Your task to perform on an android device: turn notification dots on Image 0: 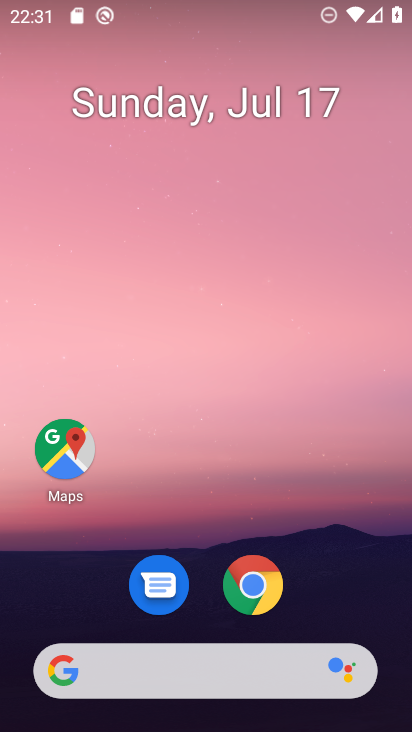
Step 0: drag from (171, 672) to (295, 48)
Your task to perform on an android device: turn notification dots on Image 1: 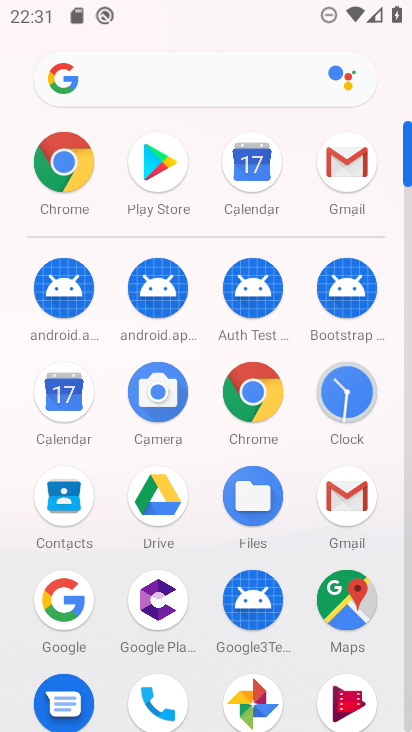
Step 1: drag from (195, 659) to (214, 196)
Your task to perform on an android device: turn notification dots on Image 2: 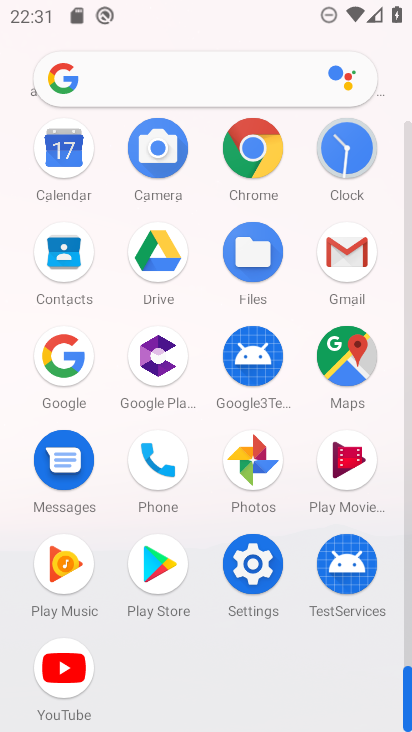
Step 2: click (254, 561)
Your task to perform on an android device: turn notification dots on Image 3: 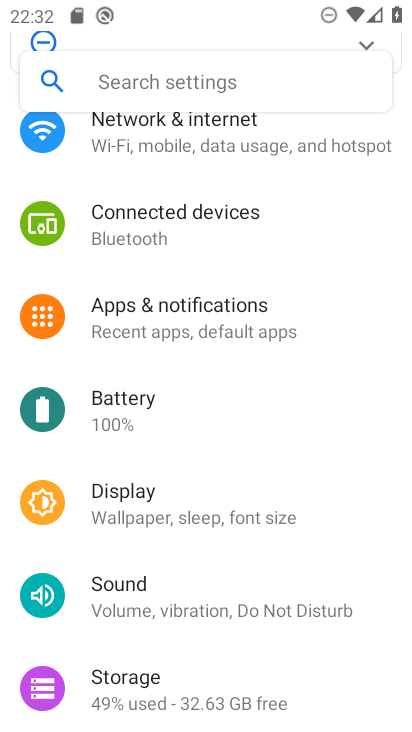
Step 3: click (200, 313)
Your task to perform on an android device: turn notification dots on Image 4: 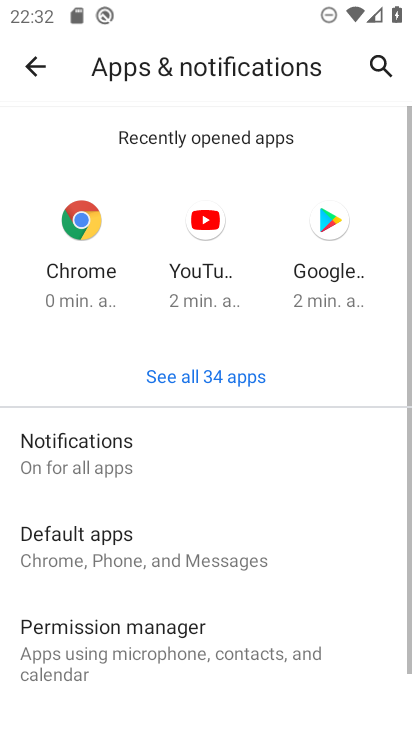
Step 4: click (93, 440)
Your task to perform on an android device: turn notification dots on Image 5: 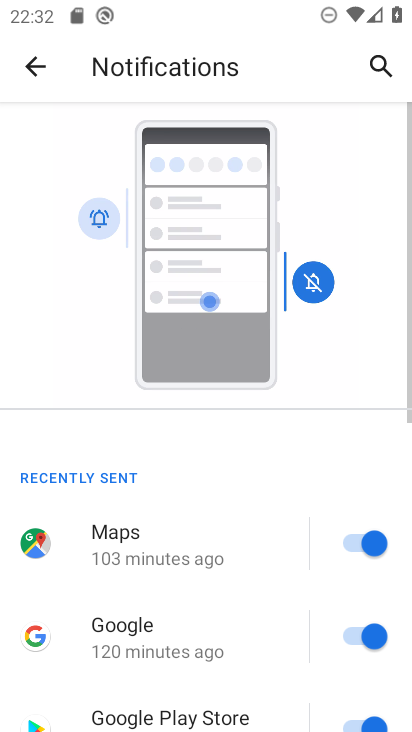
Step 5: drag from (248, 667) to (290, 30)
Your task to perform on an android device: turn notification dots on Image 6: 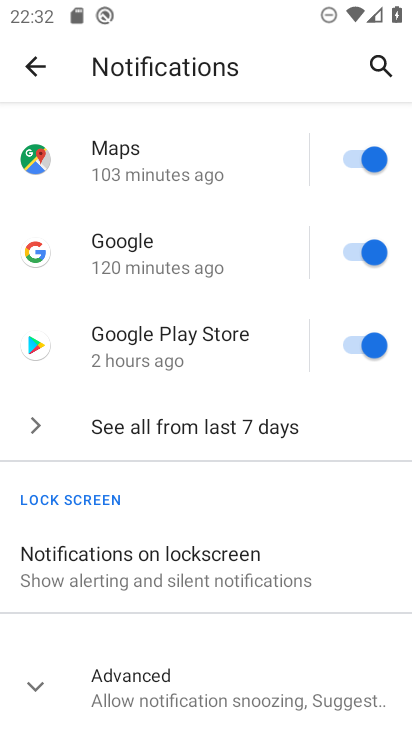
Step 6: click (191, 685)
Your task to perform on an android device: turn notification dots on Image 7: 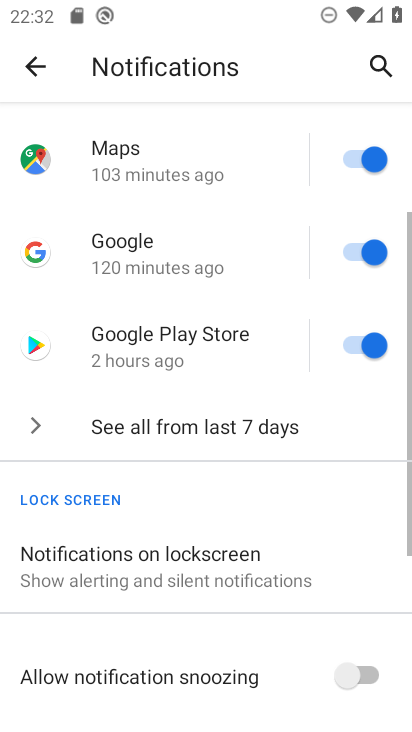
Step 7: drag from (270, 648) to (306, 22)
Your task to perform on an android device: turn notification dots on Image 8: 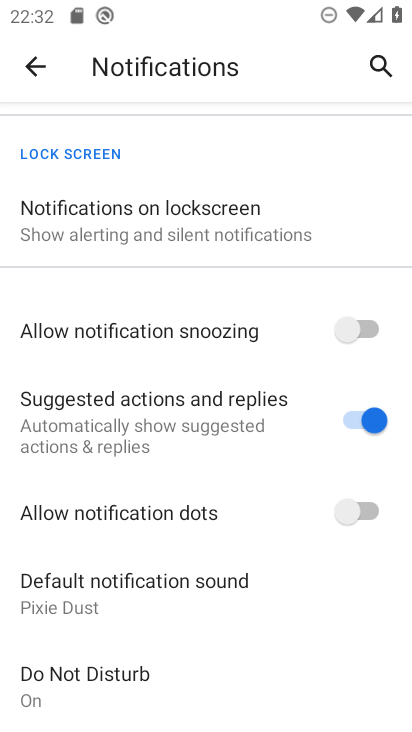
Step 8: drag from (274, 630) to (337, 174)
Your task to perform on an android device: turn notification dots on Image 9: 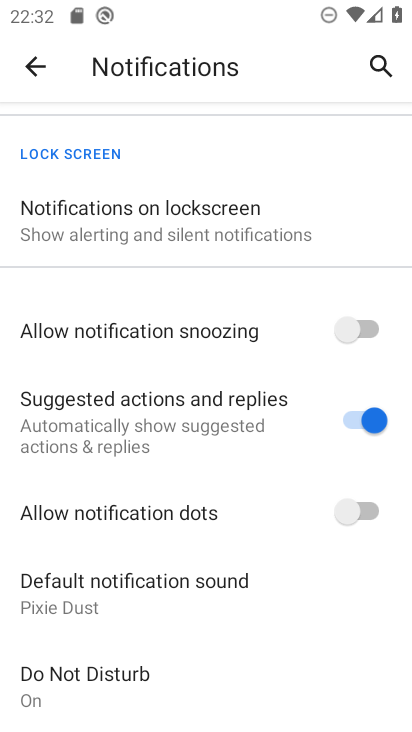
Step 9: click (367, 510)
Your task to perform on an android device: turn notification dots on Image 10: 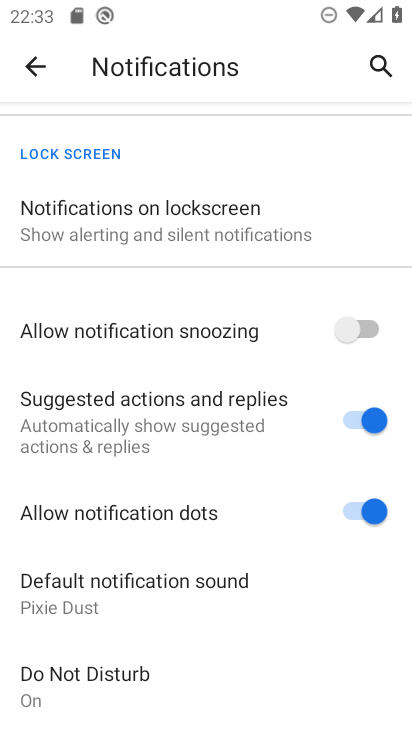
Step 10: task complete